Your task to perform on an android device: Go to Reddit.com Image 0: 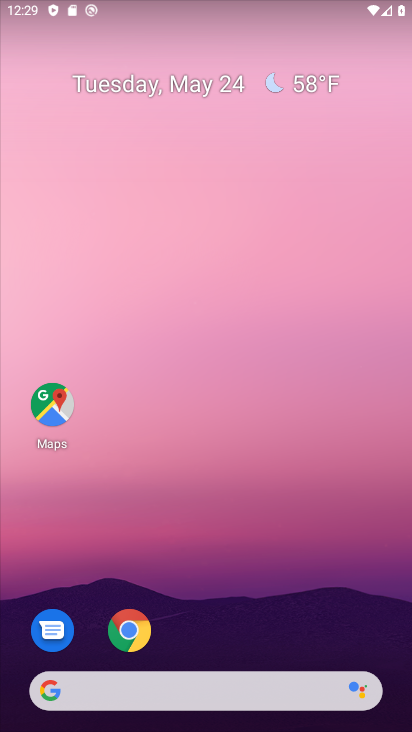
Step 0: click (132, 629)
Your task to perform on an android device: Go to Reddit.com Image 1: 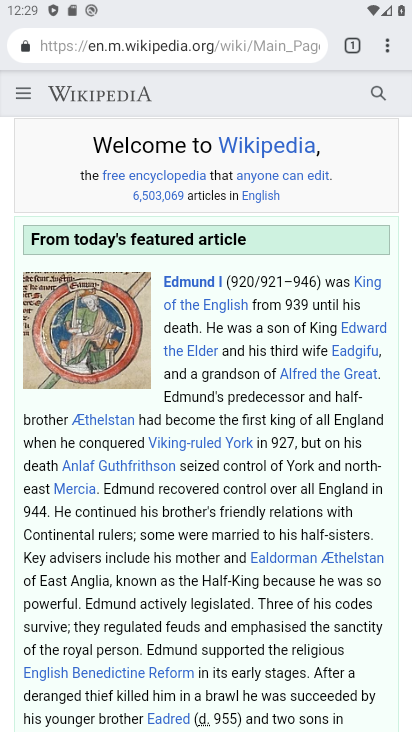
Step 1: click (283, 45)
Your task to perform on an android device: Go to Reddit.com Image 2: 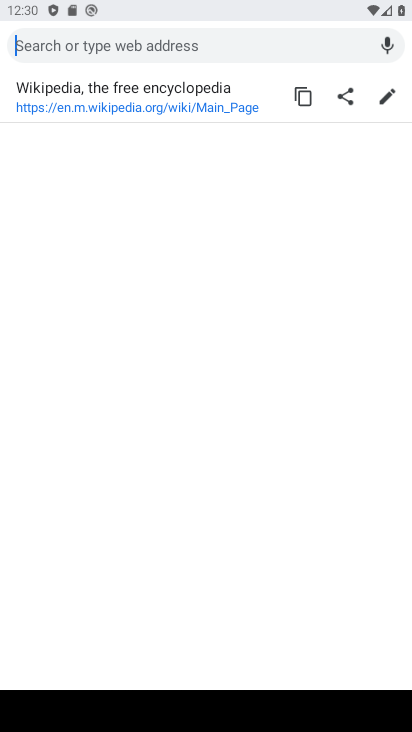
Step 2: type "Reddit.com"
Your task to perform on an android device: Go to Reddit.com Image 3: 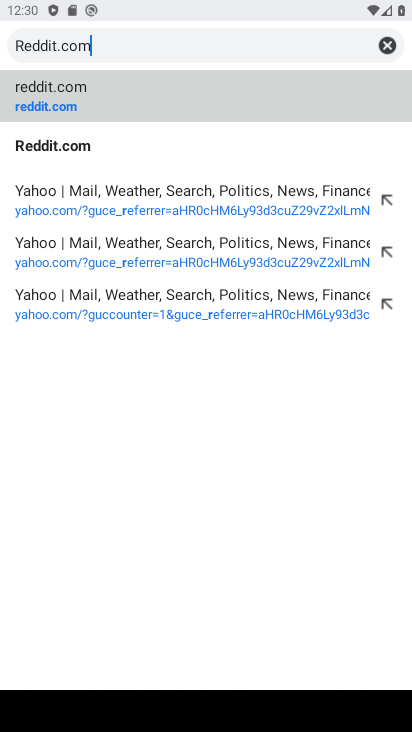
Step 3: type ""
Your task to perform on an android device: Go to Reddit.com Image 4: 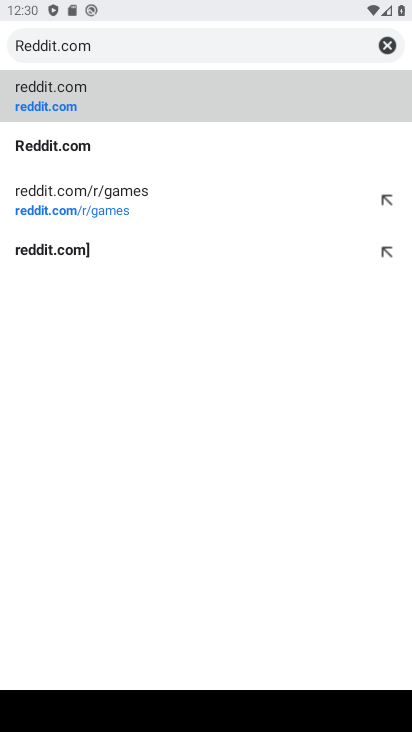
Step 4: click (95, 151)
Your task to perform on an android device: Go to Reddit.com Image 5: 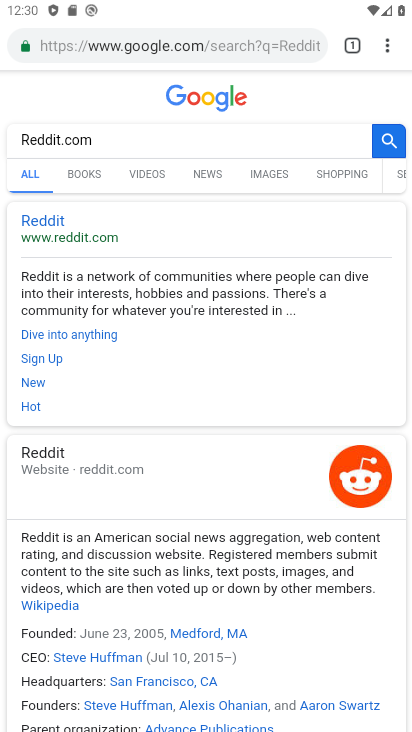
Step 5: click (70, 223)
Your task to perform on an android device: Go to Reddit.com Image 6: 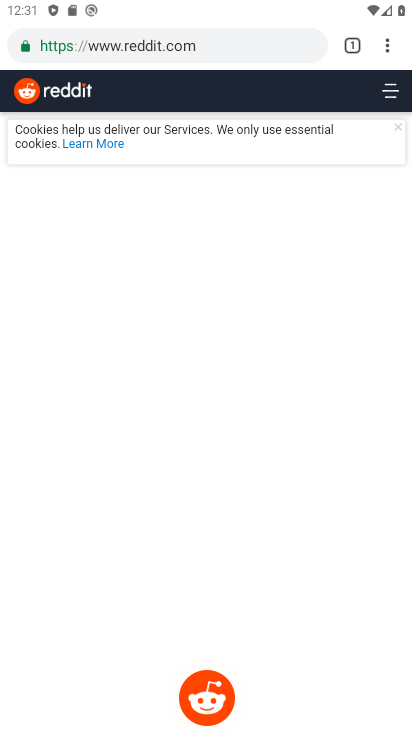
Step 6: task complete